Your task to perform on an android device: turn off location Image 0: 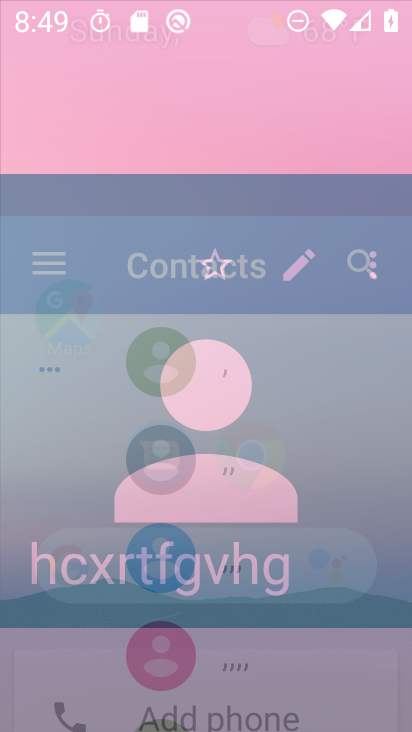
Step 0: press home button
Your task to perform on an android device: turn off location Image 1: 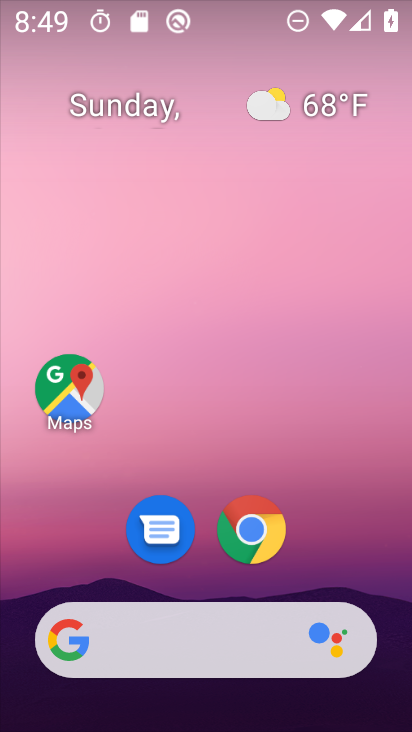
Step 1: drag from (204, 580) to (234, 106)
Your task to perform on an android device: turn off location Image 2: 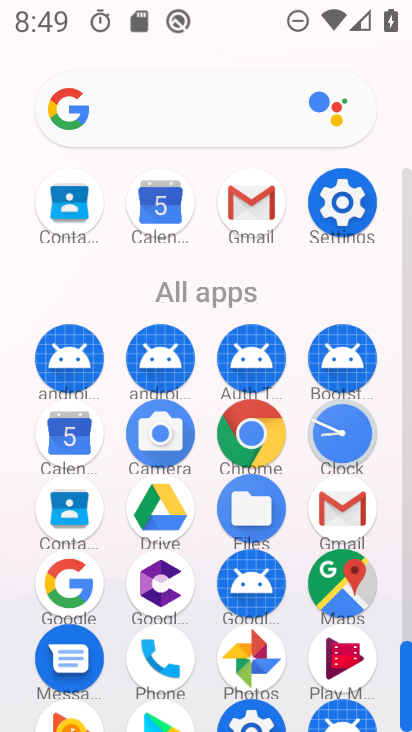
Step 2: click (340, 196)
Your task to perform on an android device: turn off location Image 3: 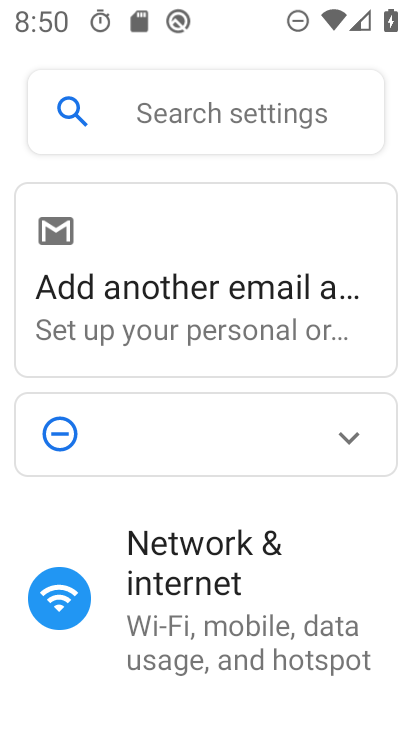
Step 3: drag from (159, 670) to (180, 243)
Your task to perform on an android device: turn off location Image 4: 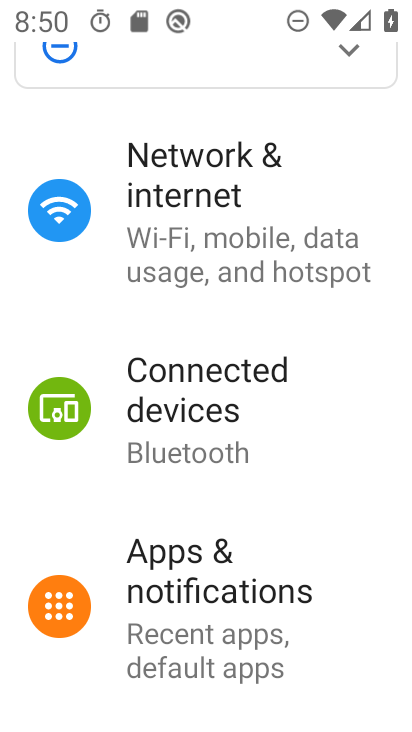
Step 4: drag from (242, 692) to (265, 144)
Your task to perform on an android device: turn off location Image 5: 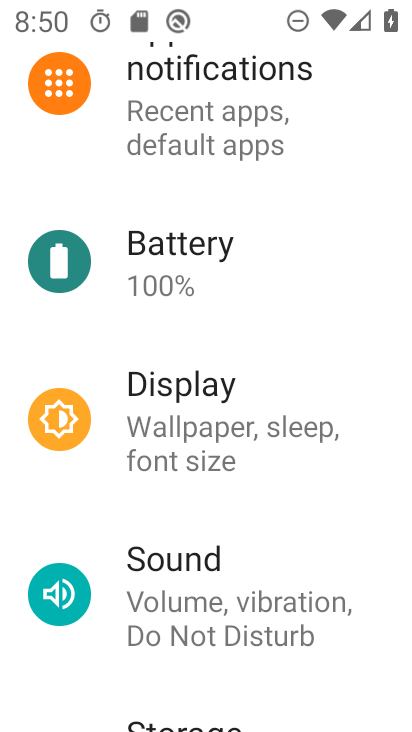
Step 5: drag from (175, 661) to (229, 101)
Your task to perform on an android device: turn off location Image 6: 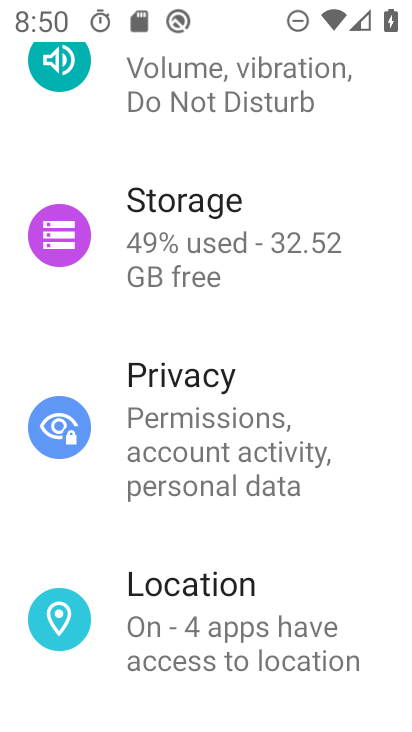
Step 6: click (197, 597)
Your task to perform on an android device: turn off location Image 7: 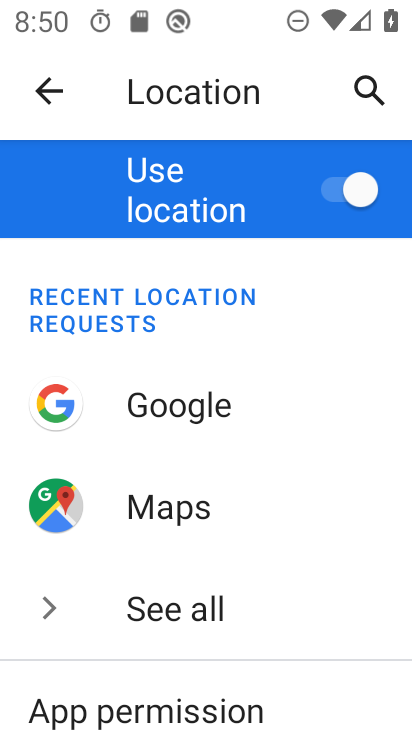
Step 7: click (333, 191)
Your task to perform on an android device: turn off location Image 8: 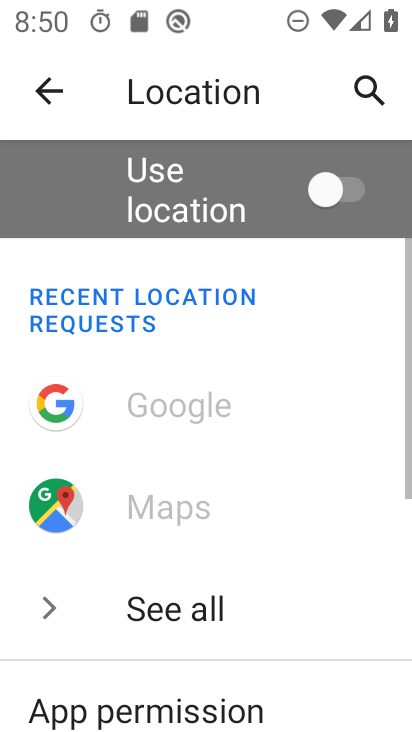
Step 8: task complete